Your task to perform on an android device: See recent photos Image 0: 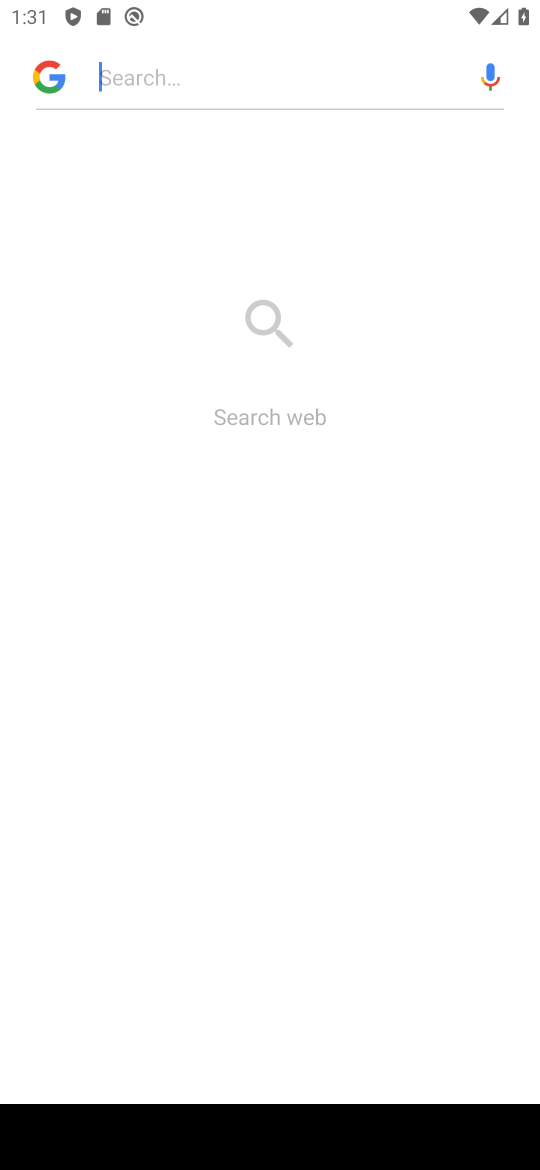
Step 0: task complete